Your task to perform on an android device: uninstall "Google Play Games" Image 0: 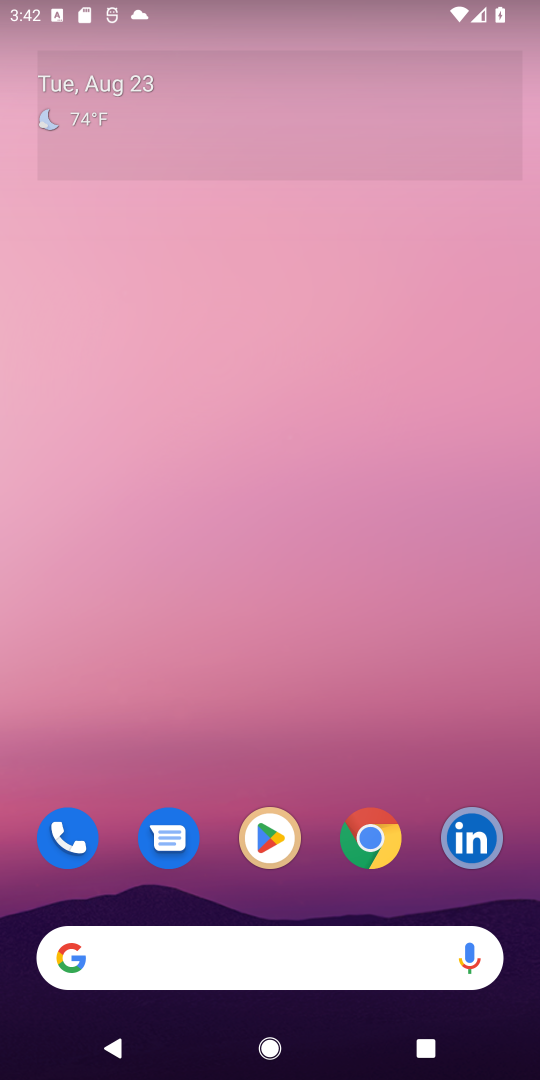
Step 0: click (260, 835)
Your task to perform on an android device: uninstall "Google Play Games" Image 1: 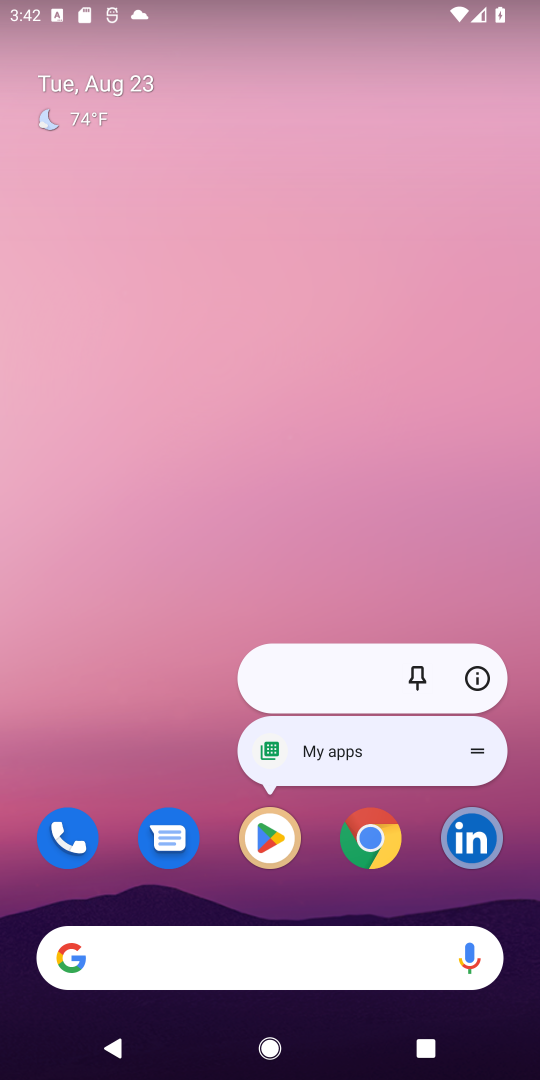
Step 1: click (259, 833)
Your task to perform on an android device: uninstall "Google Play Games" Image 2: 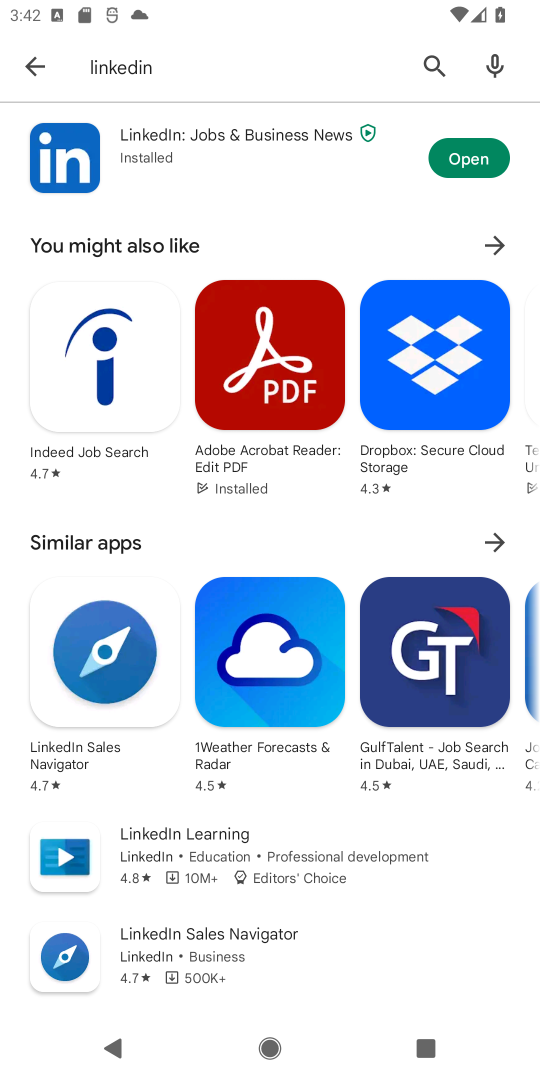
Step 2: click (24, 60)
Your task to perform on an android device: uninstall "Google Play Games" Image 3: 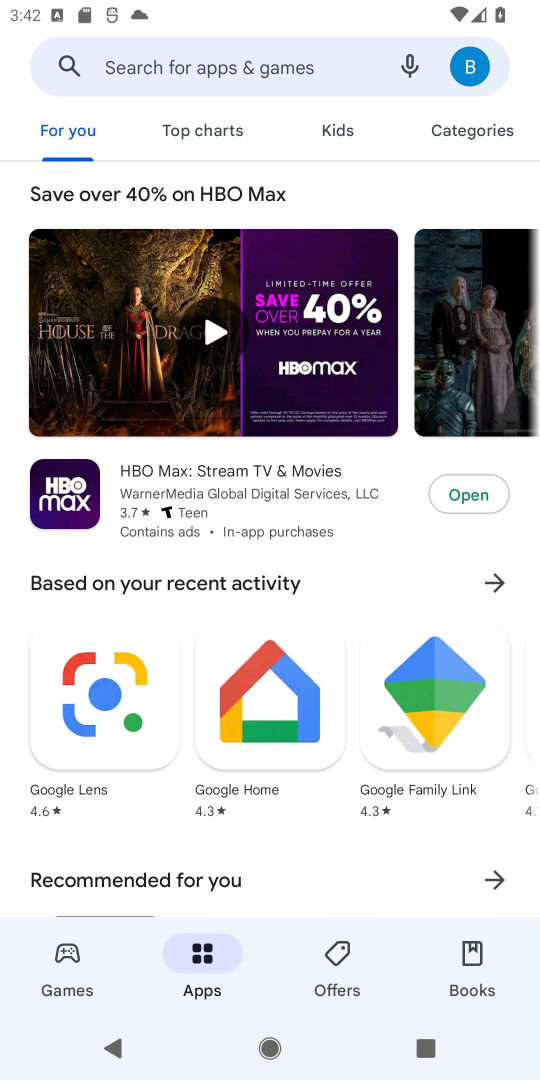
Step 3: click (130, 71)
Your task to perform on an android device: uninstall "Google Play Games" Image 4: 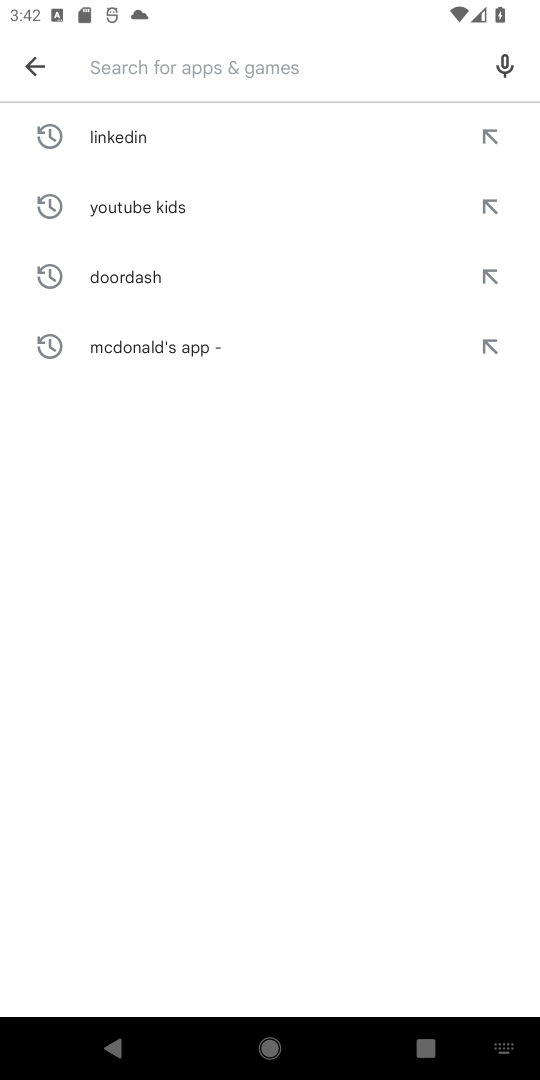
Step 4: type "Google Play Games"
Your task to perform on an android device: uninstall "Google Play Games" Image 5: 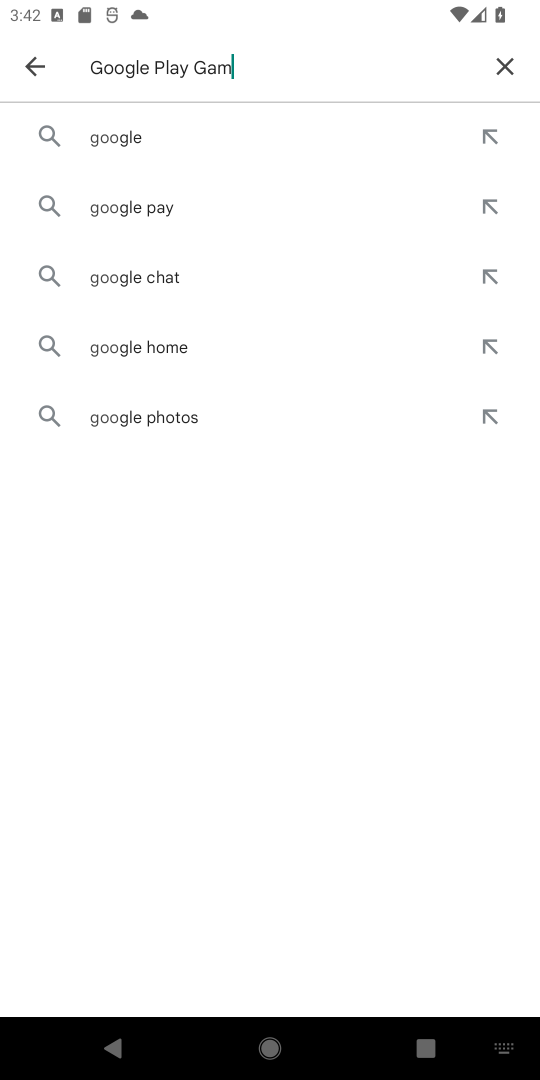
Step 5: type ""
Your task to perform on an android device: uninstall "Google Play Games" Image 6: 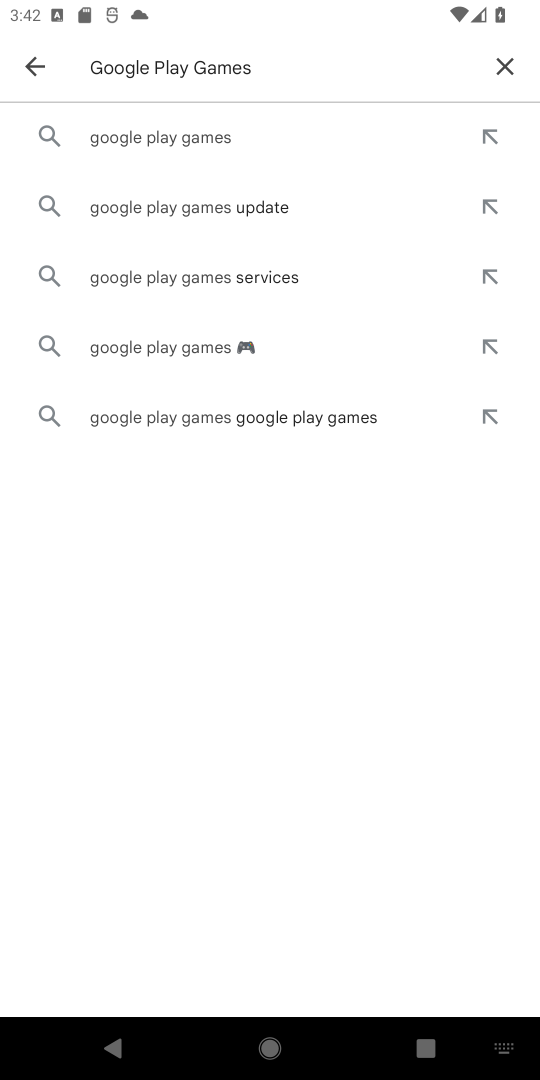
Step 6: click (166, 130)
Your task to perform on an android device: uninstall "Google Play Games" Image 7: 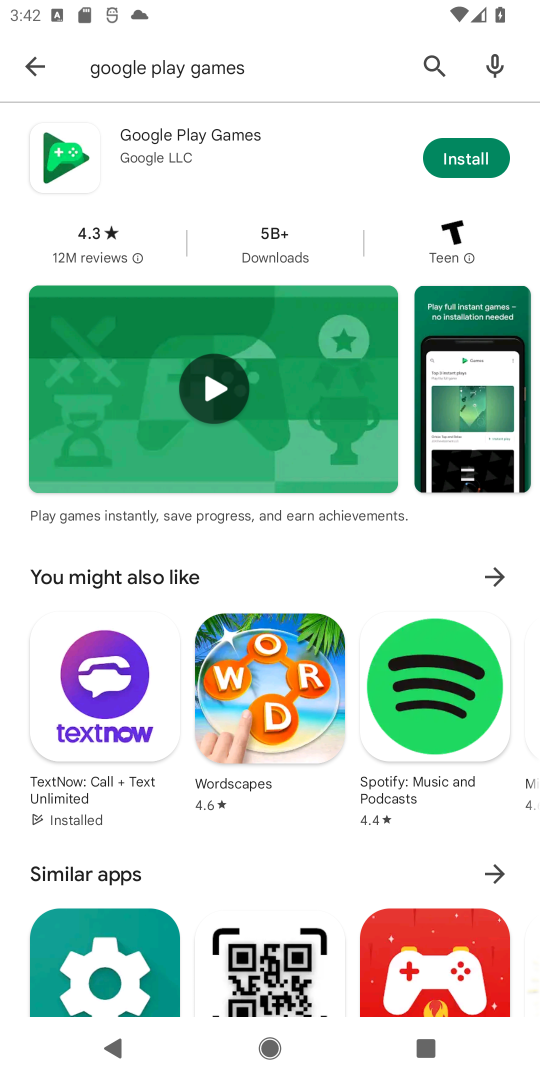
Step 7: task complete